Your task to perform on an android device: What is the news today? Image 0: 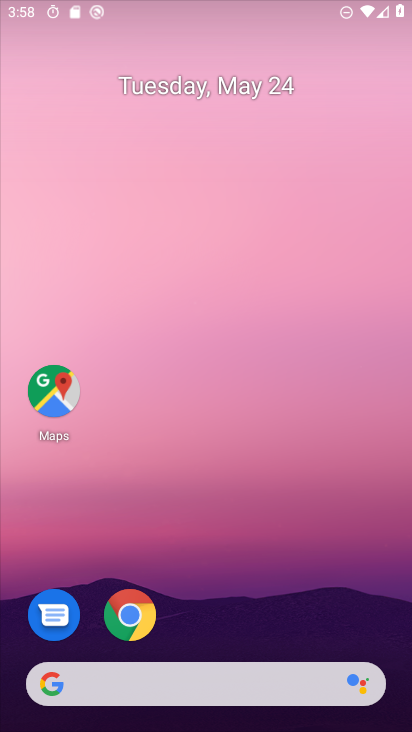
Step 0: drag from (287, 570) to (324, 72)
Your task to perform on an android device: What is the news today? Image 1: 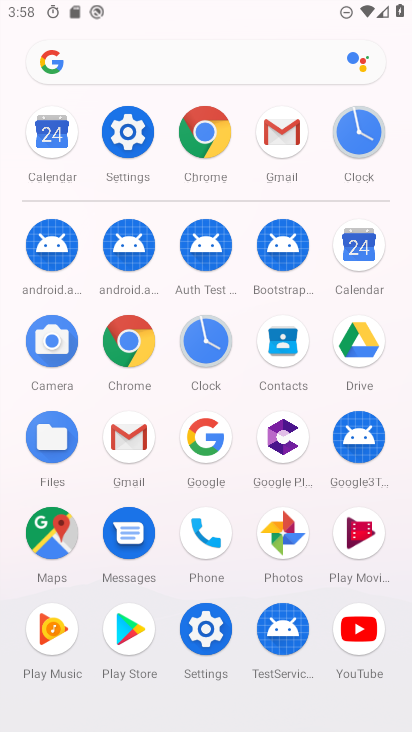
Step 1: click (207, 451)
Your task to perform on an android device: What is the news today? Image 2: 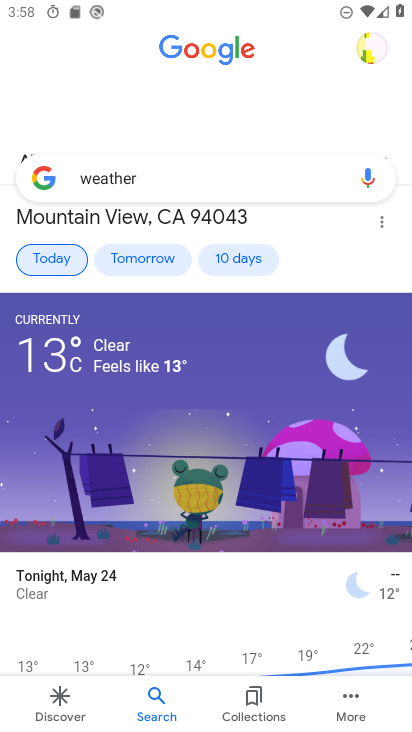
Step 2: click (202, 185)
Your task to perform on an android device: What is the news today? Image 3: 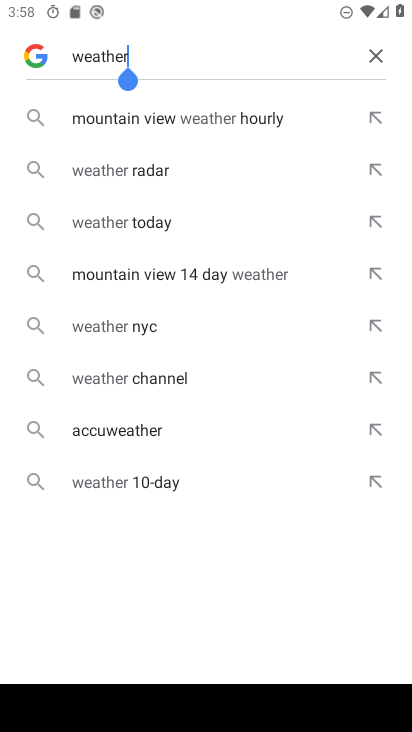
Step 3: click (375, 56)
Your task to perform on an android device: What is the news today? Image 4: 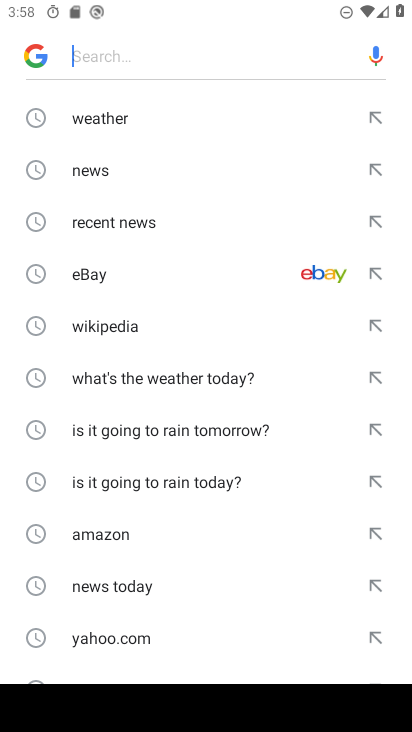
Step 4: click (343, 164)
Your task to perform on an android device: What is the news today? Image 5: 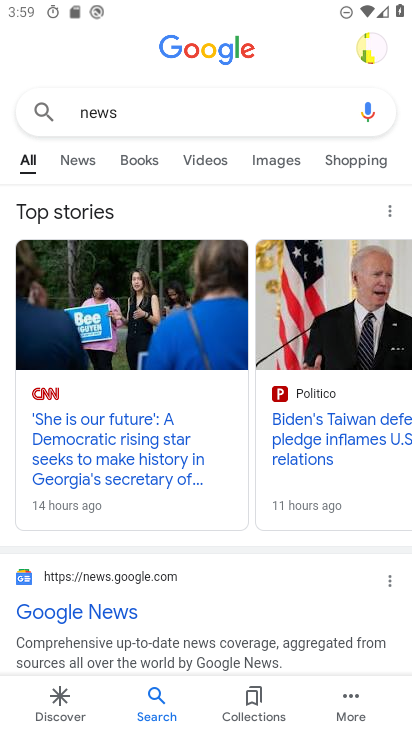
Step 5: click (75, 161)
Your task to perform on an android device: What is the news today? Image 6: 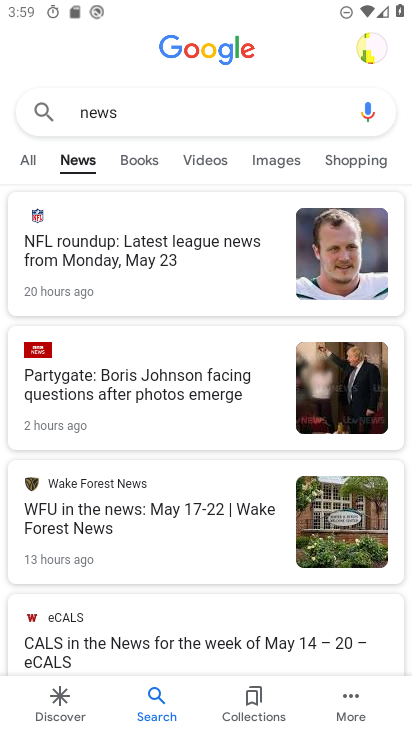
Step 6: task complete